Your task to perform on an android device: Look up the top rated 18v miter saw on Home Depot. Image 0: 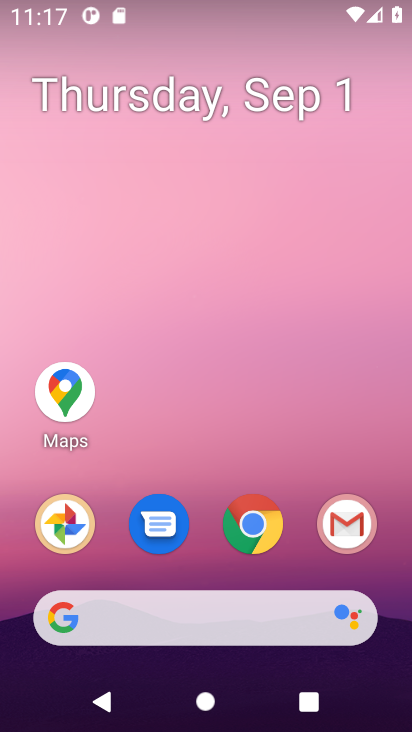
Step 0: click (258, 613)
Your task to perform on an android device: Look up the top rated 18v miter saw on Home Depot. Image 1: 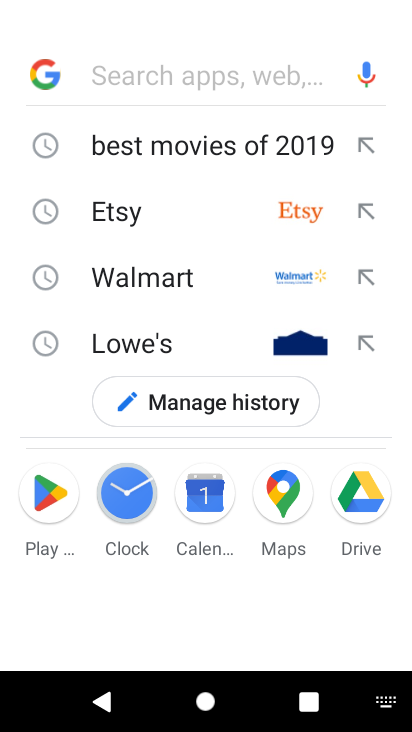
Step 1: press enter
Your task to perform on an android device: Look up the top rated 18v miter saw on Home Depot. Image 2: 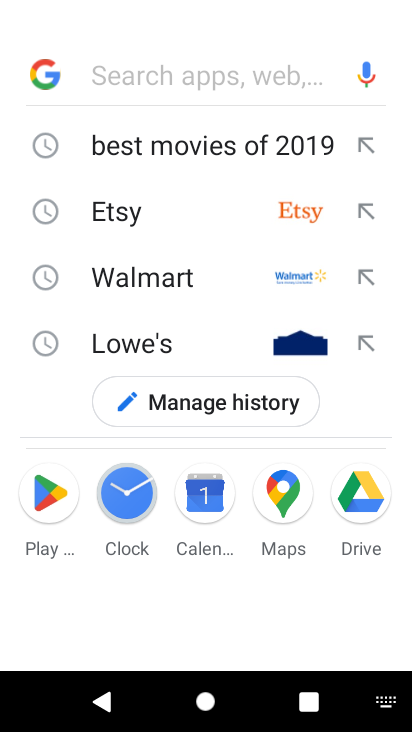
Step 2: type "home depot"
Your task to perform on an android device: Look up the top rated 18v miter saw on Home Depot. Image 3: 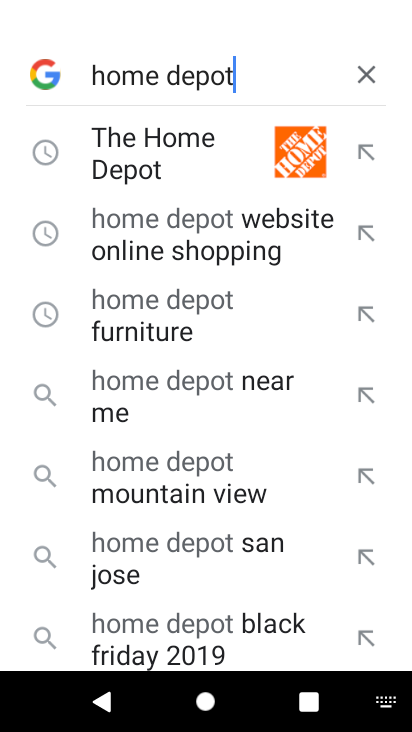
Step 3: click (146, 135)
Your task to perform on an android device: Look up the top rated 18v miter saw on Home Depot. Image 4: 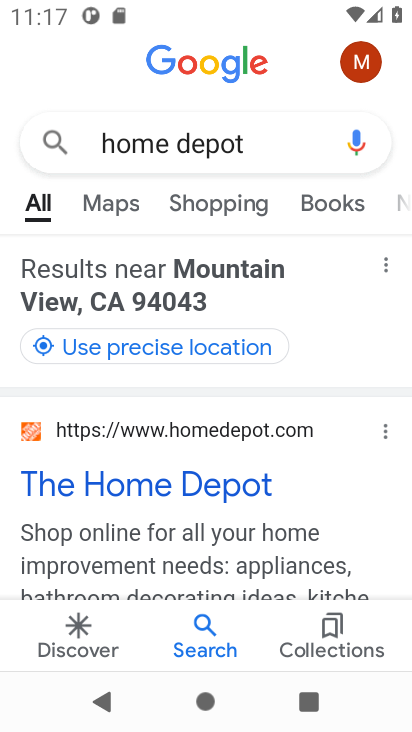
Step 4: click (213, 491)
Your task to perform on an android device: Look up the top rated 18v miter saw on Home Depot. Image 5: 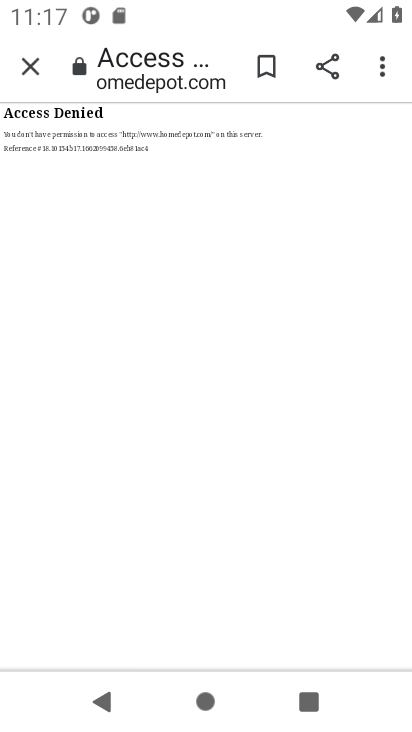
Step 5: task complete